Your task to perform on an android device: Open the calendar app, open the side menu, and click the "Day" option Image 0: 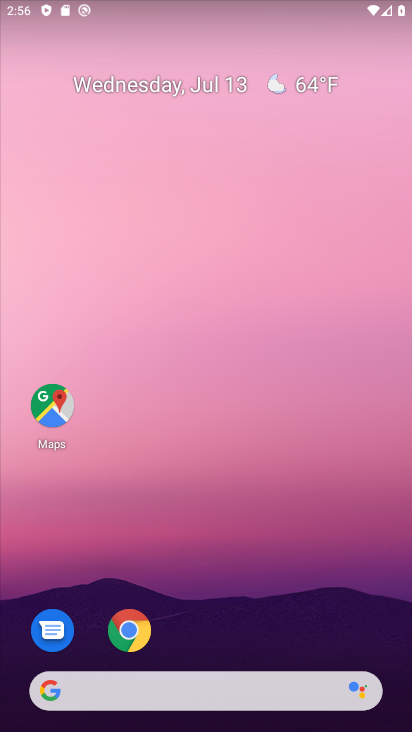
Step 0: drag from (257, 597) to (253, 30)
Your task to perform on an android device: Open the calendar app, open the side menu, and click the "Day" option Image 1: 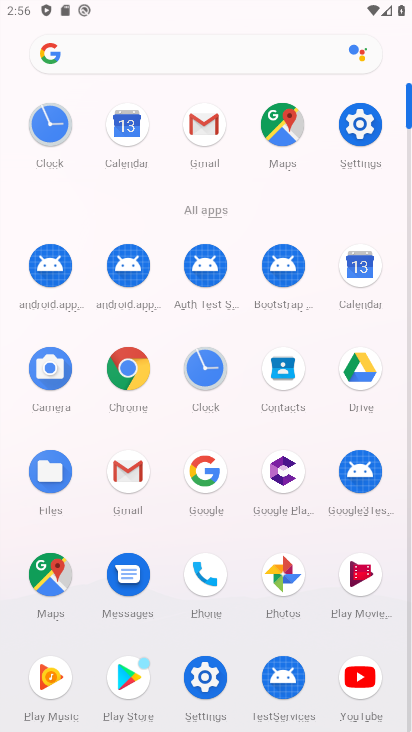
Step 1: click (353, 259)
Your task to perform on an android device: Open the calendar app, open the side menu, and click the "Day" option Image 2: 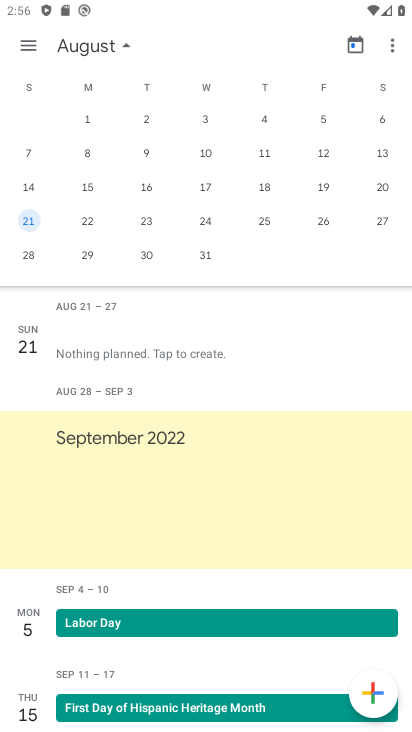
Step 2: click (29, 37)
Your task to perform on an android device: Open the calendar app, open the side menu, and click the "Day" option Image 3: 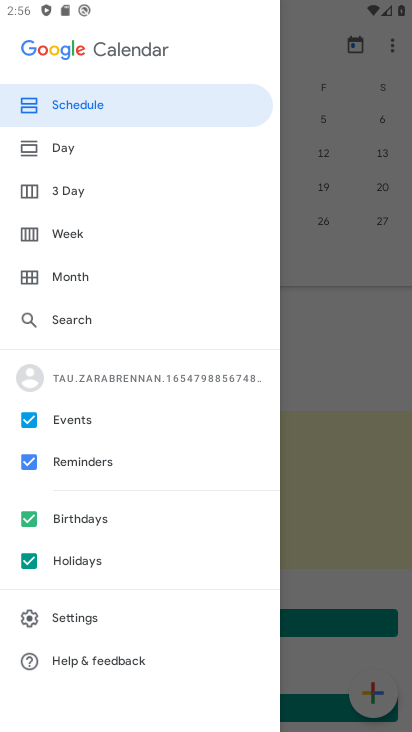
Step 3: click (74, 167)
Your task to perform on an android device: Open the calendar app, open the side menu, and click the "Day" option Image 4: 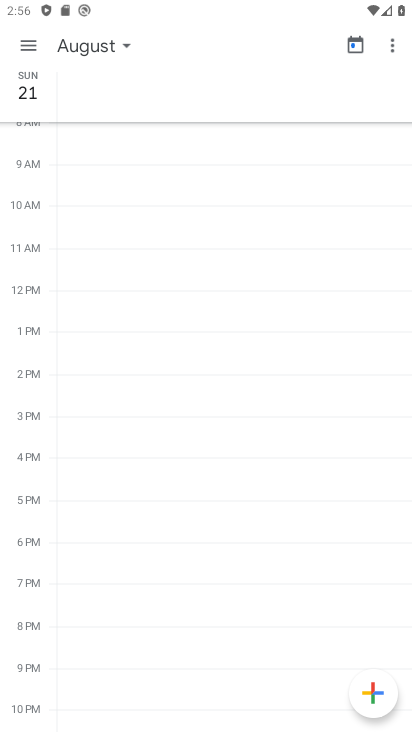
Step 4: task complete